Your task to perform on an android device: delete browsing data in the chrome app Image 0: 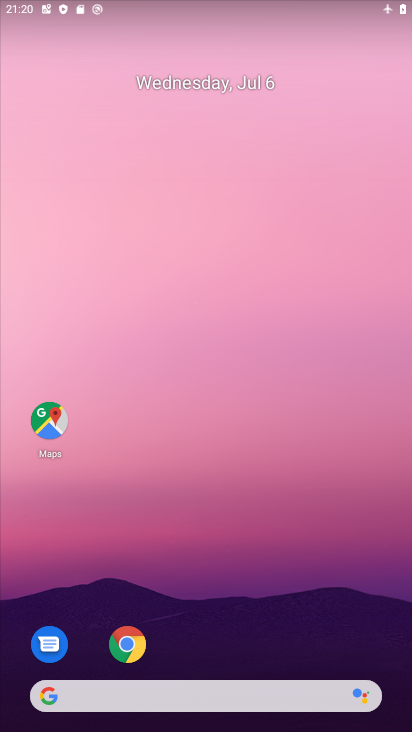
Step 0: click (145, 639)
Your task to perform on an android device: delete browsing data in the chrome app Image 1: 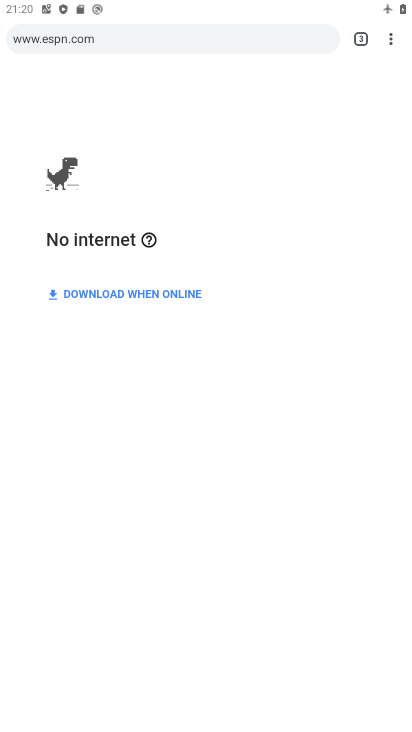
Step 1: click (389, 29)
Your task to perform on an android device: delete browsing data in the chrome app Image 2: 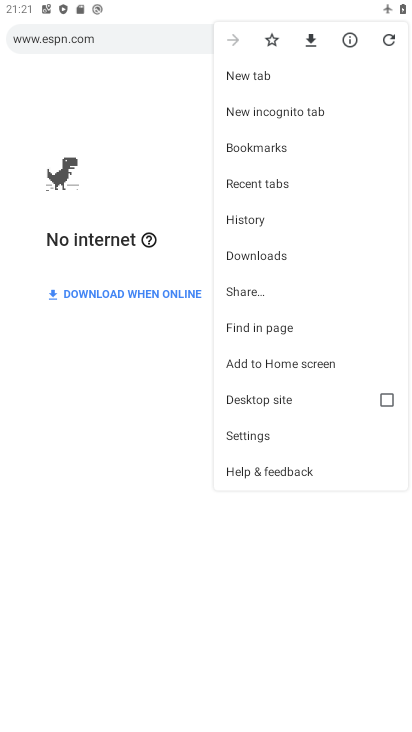
Step 2: click (274, 219)
Your task to perform on an android device: delete browsing data in the chrome app Image 3: 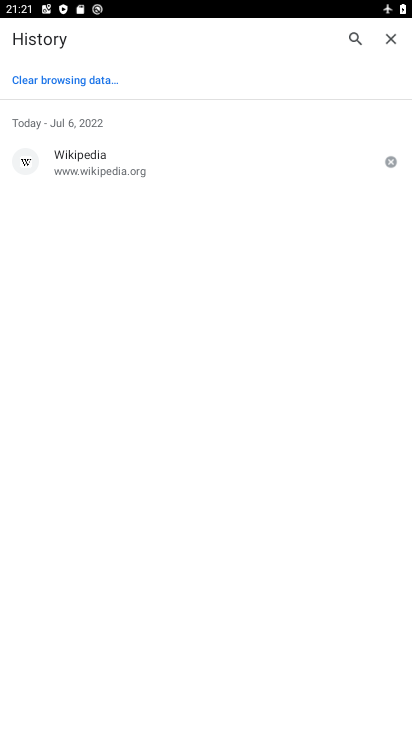
Step 3: click (84, 78)
Your task to perform on an android device: delete browsing data in the chrome app Image 4: 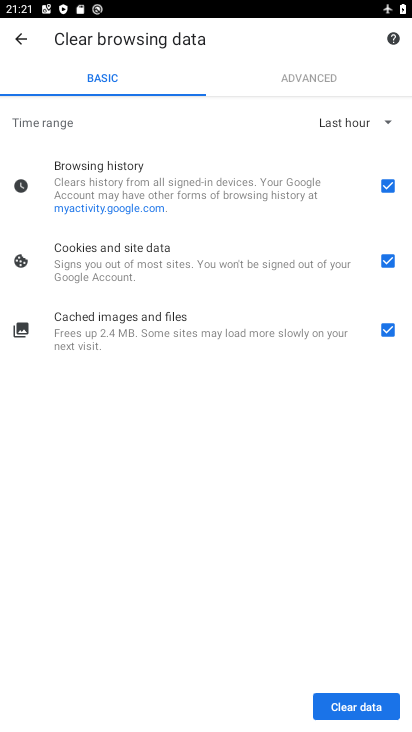
Step 4: click (378, 710)
Your task to perform on an android device: delete browsing data in the chrome app Image 5: 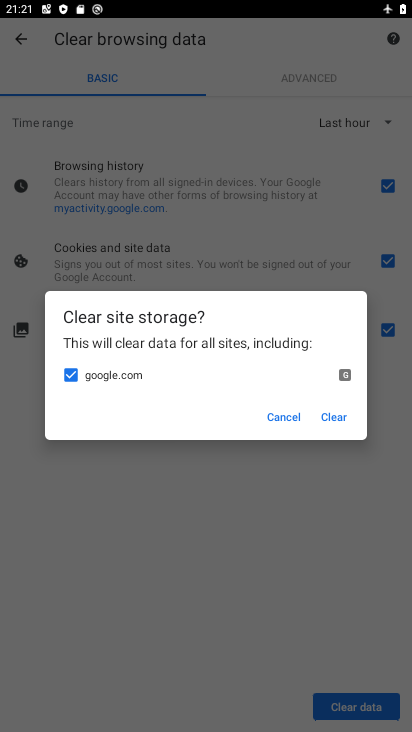
Step 5: click (322, 415)
Your task to perform on an android device: delete browsing data in the chrome app Image 6: 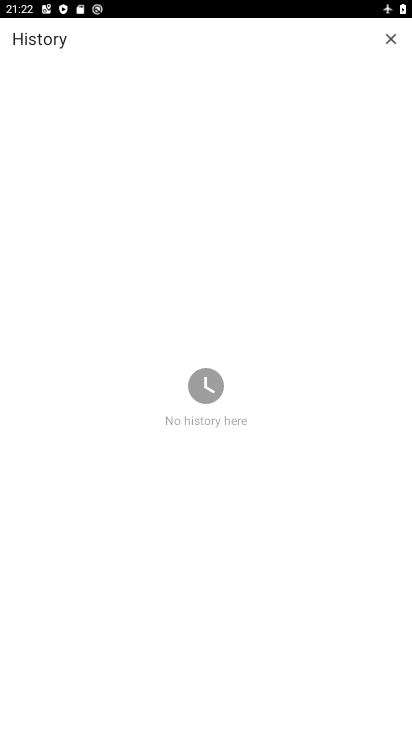
Step 6: task complete